Your task to perform on an android device: Open settings on Google Maps Image 0: 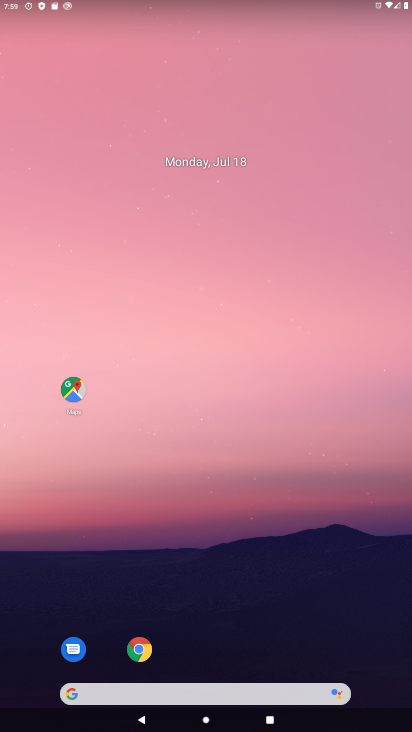
Step 0: drag from (303, 599) to (279, 93)
Your task to perform on an android device: Open settings on Google Maps Image 1: 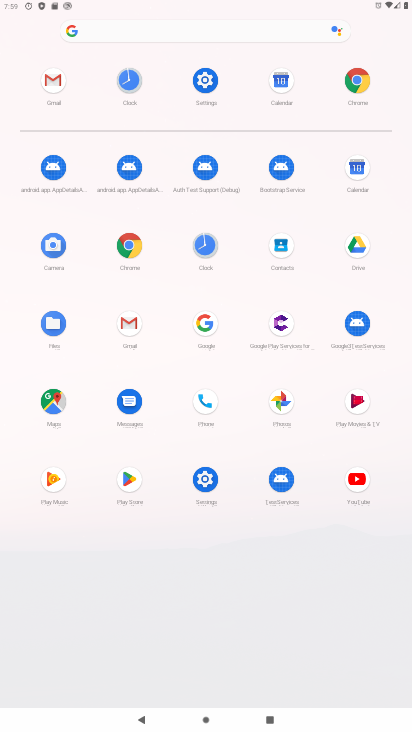
Step 1: click (52, 407)
Your task to perform on an android device: Open settings on Google Maps Image 2: 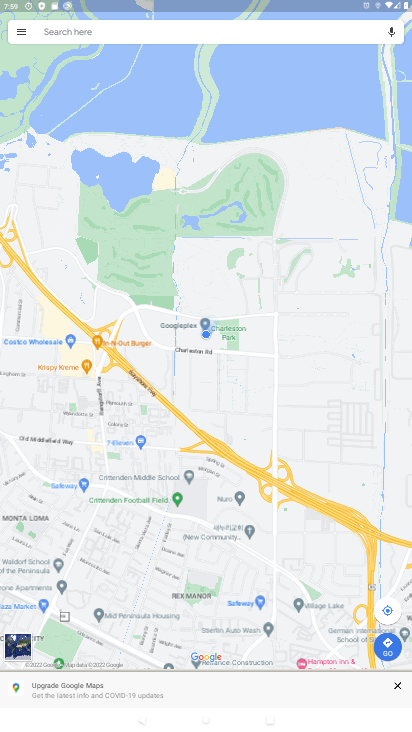
Step 2: click (14, 27)
Your task to perform on an android device: Open settings on Google Maps Image 3: 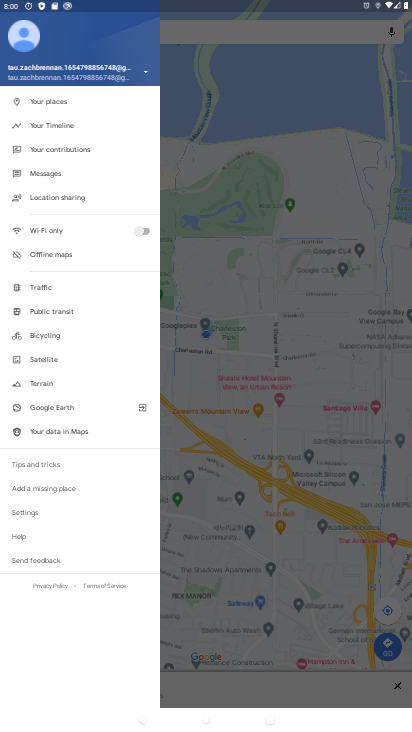
Step 3: click (15, 30)
Your task to perform on an android device: Open settings on Google Maps Image 4: 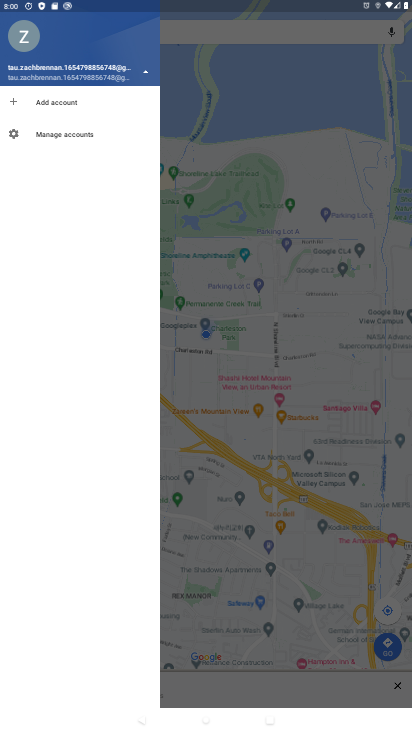
Step 4: click (23, 46)
Your task to perform on an android device: Open settings on Google Maps Image 5: 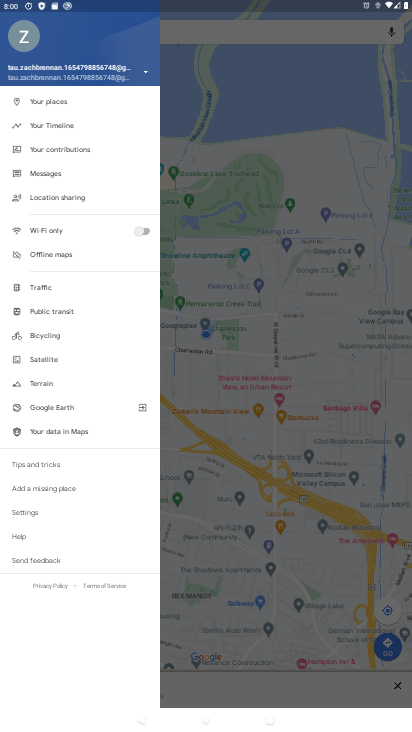
Step 5: click (29, 510)
Your task to perform on an android device: Open settings on Google Maps Image 6: 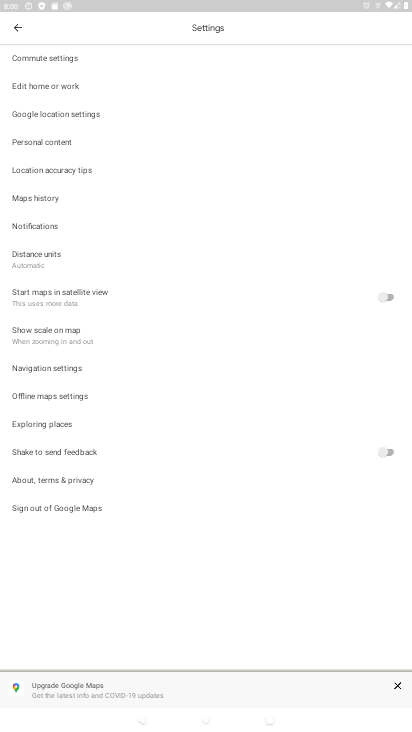
Step 6: task complete